Your task to perform on an android device: Go to wifi settings Image 0: 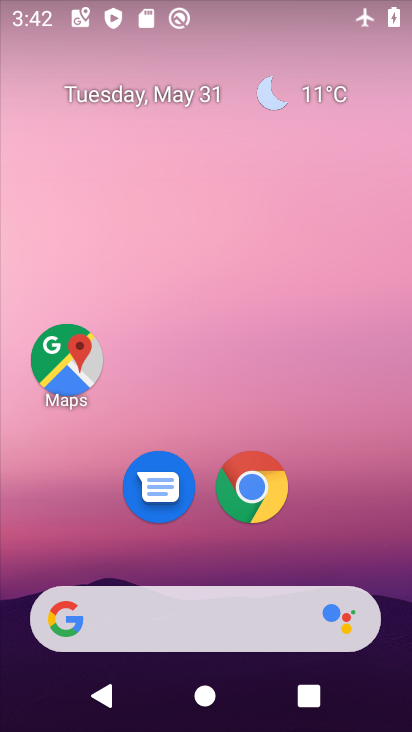
Step 0: drag from (348, 537) to (290, 47)
Your task to perform on an android device: Go to wifi settings Image 1: 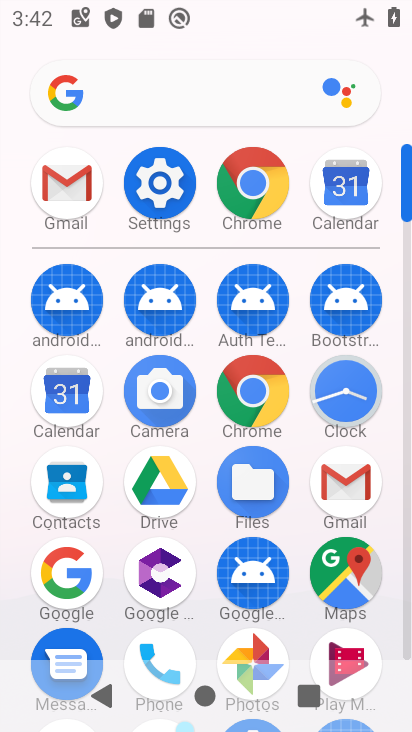
Step 1: click (161, 181)
Your task to perform on an android device: Go to wifi settings Image 2: 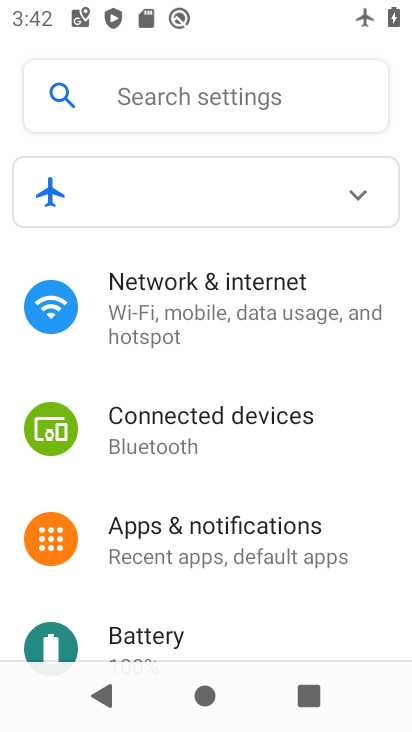
Step 2: click (176, 283)
Your task to perform on an android device: Go to wifi settings Image 3: 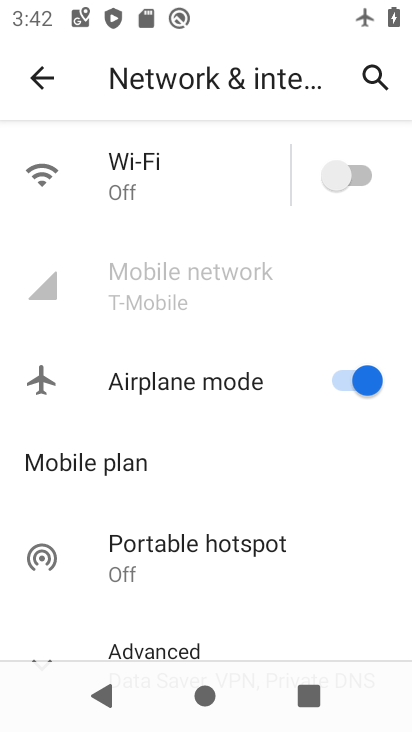
Step 3: click (116, 170)
Your task to perform on an android device: Go to wifi settings Image 4: 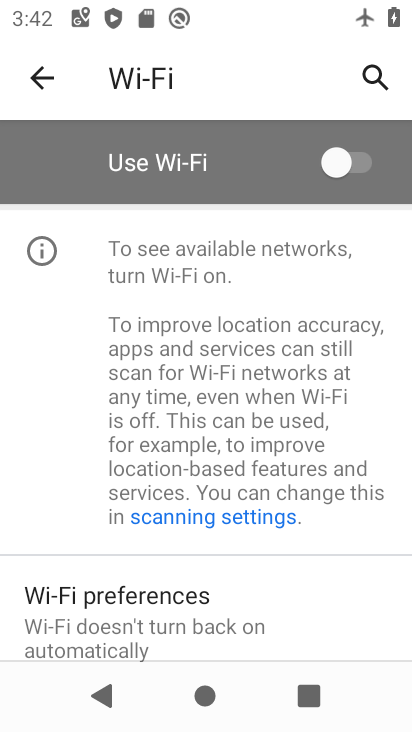
Step 4: task complete